Your task to perform on an android device: Clear the shopping cart on bestbuy.com. Image 0: 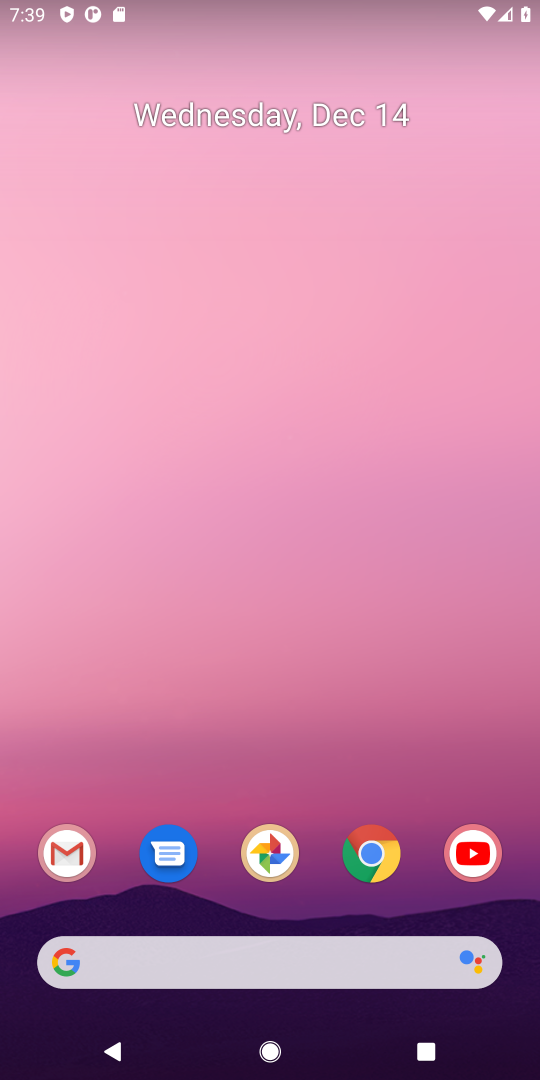
Step 0: click (384, 854)
Your task to perform on an android device: Clear the shopping cart on bestbuy.com. Image 1: 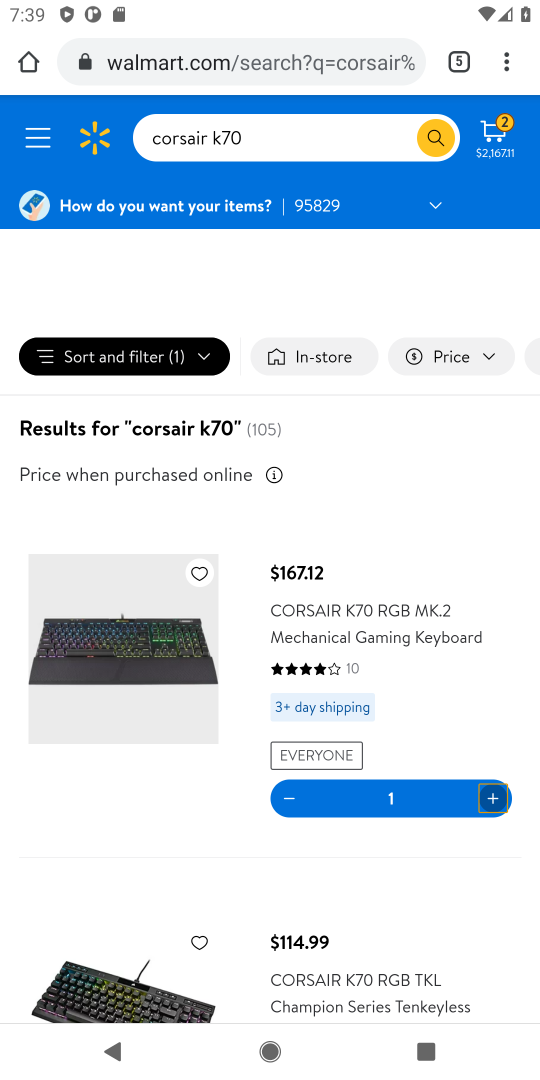
Step 1: click (464, 64)
Your task to perform on an android device: Clear the shopping cart on bestbuy.com. Image 2: 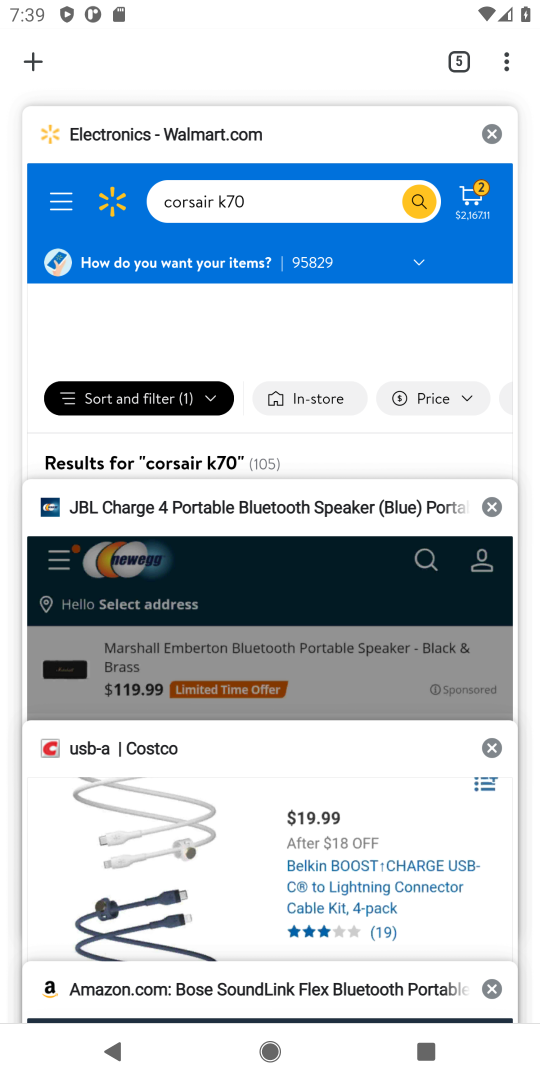
Step 2: click (36, 68)
Your task to perform on an android device: Clear the shopping cart on bestbuy.com. Image 3: 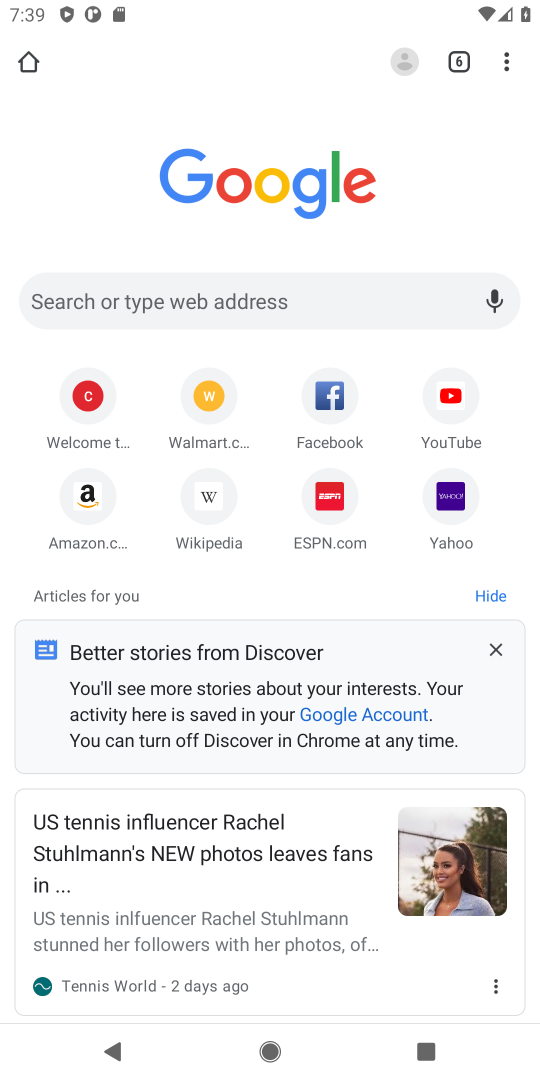
Step 3: click (120, 298)
Your task to perform on an android device: Clear the shopping cart on bestbuy.com. Image 4: 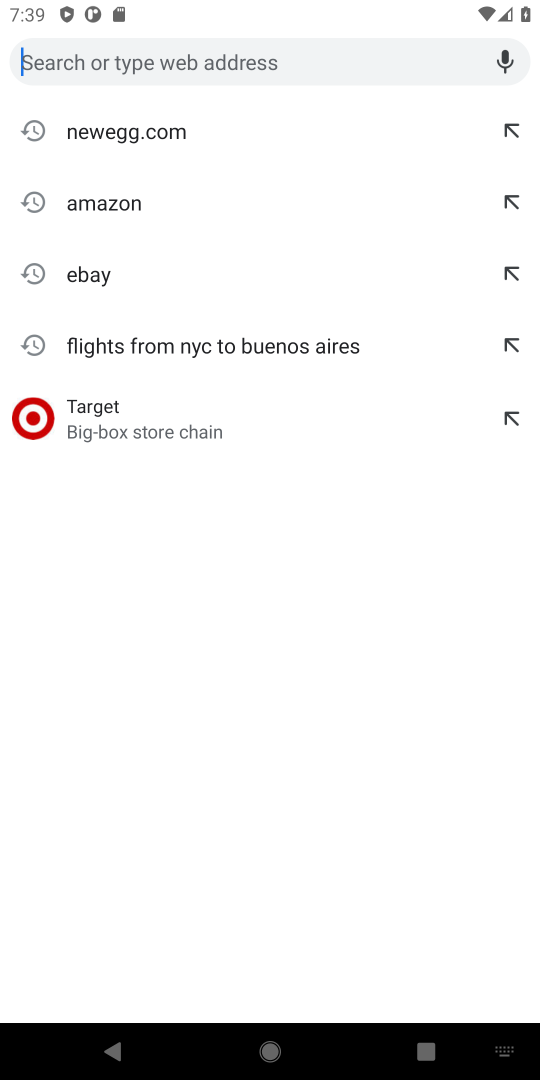
Step 4: type "bestbuy"
Your task to perform on an android device: Clear the shopping cart on bestbuy.com. Image 5: 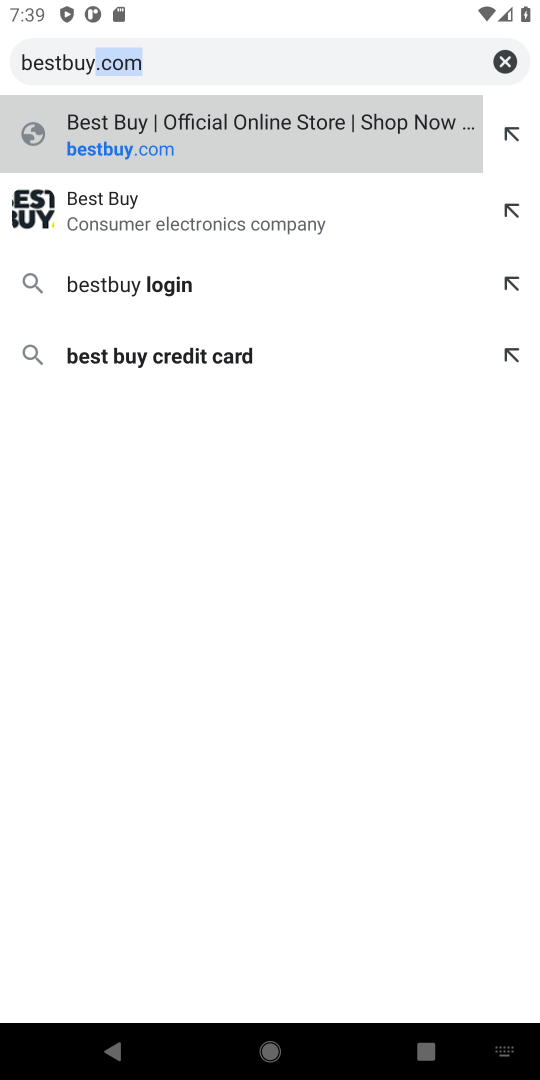
Step 5: click (161, 146)
Your task to perform on an android device: Clear the shopping cart on bestbuy.com. Image 6: 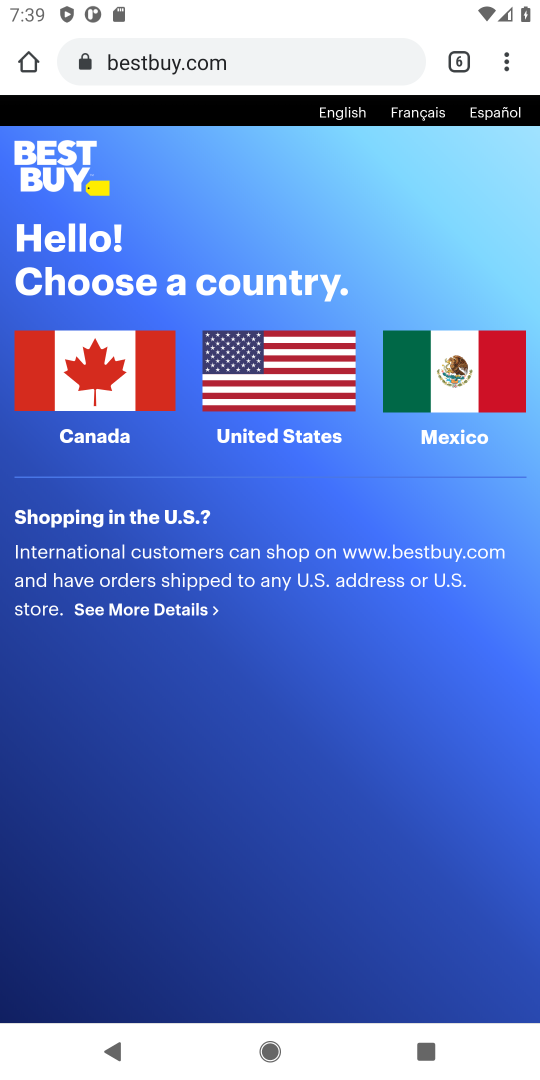
Step 6: click (340, 411)
Your task to perform on an android device: Clear the shopping cart on bestbuy.com. Image 7: 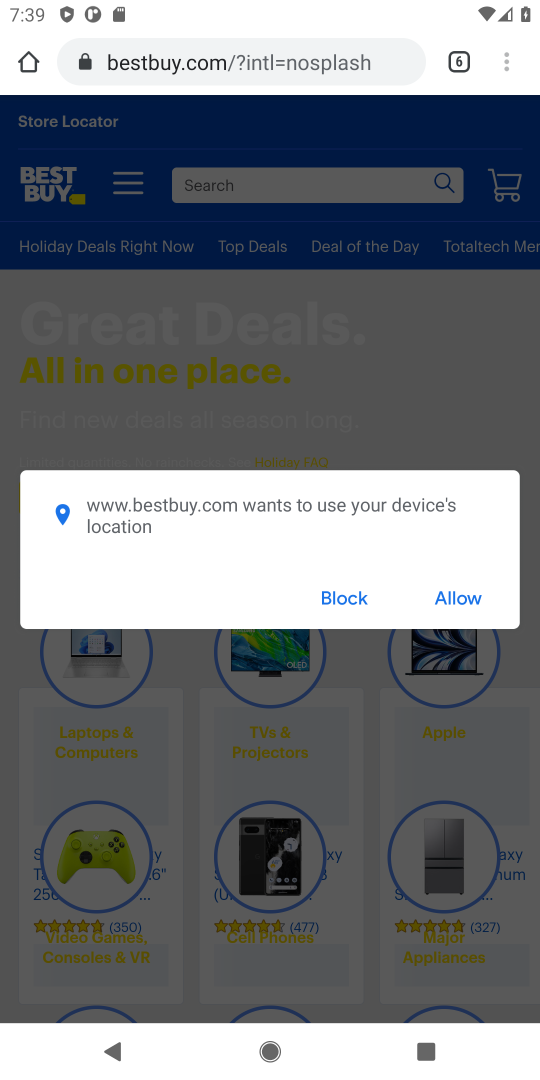
Step 7: click (344, 599)
Your task to perform on an android device: Clear the shopping cart on bestbuy.com. Image 8: 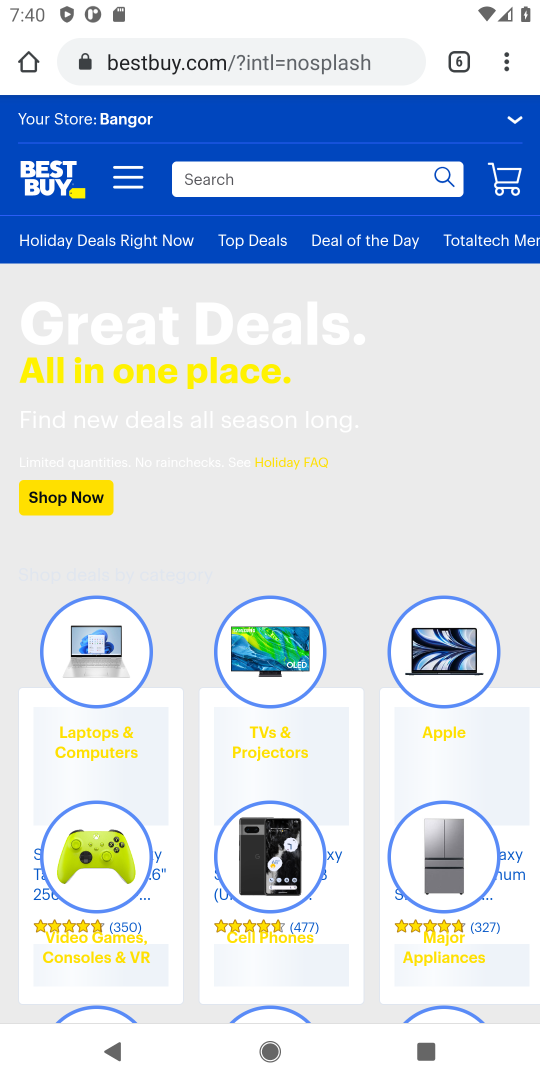
Step 8: click (510, 195)
Your task to perform on an android device: Clear the shopping cart on bestbuy.com. Image 9: 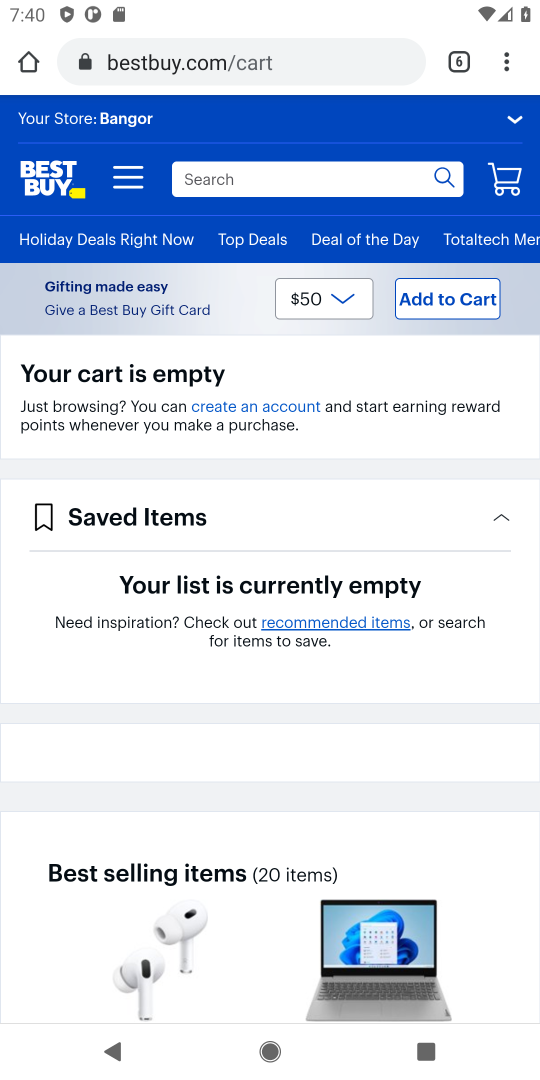
Step 9: task complete